Your task to perform on an android device: search for starred emails in the gmail app Image 0: 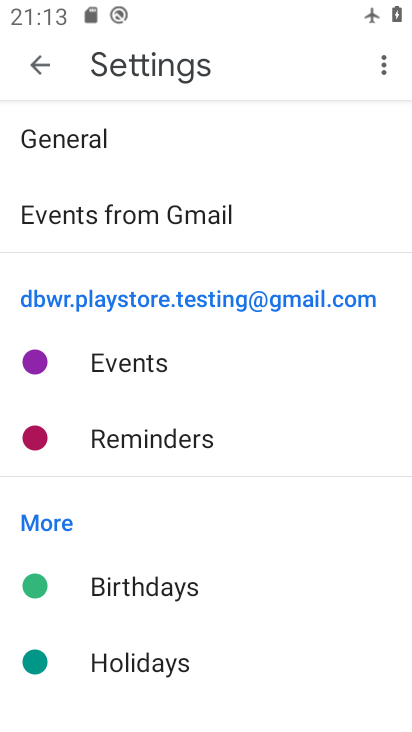
Step 0: press home button
Your task to perform on an android device: search for starred emails in the gmail app Image 1: 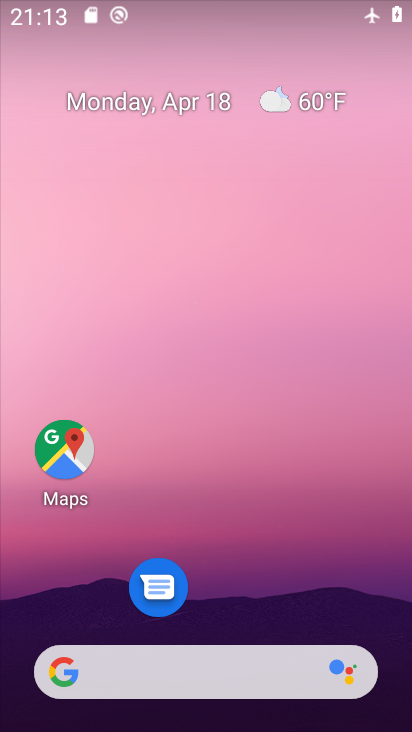
Step 1: drag from (344, 559) to (202, 29)
Your task to perform on an android device: search for starred emails in the gmail app Image 2: 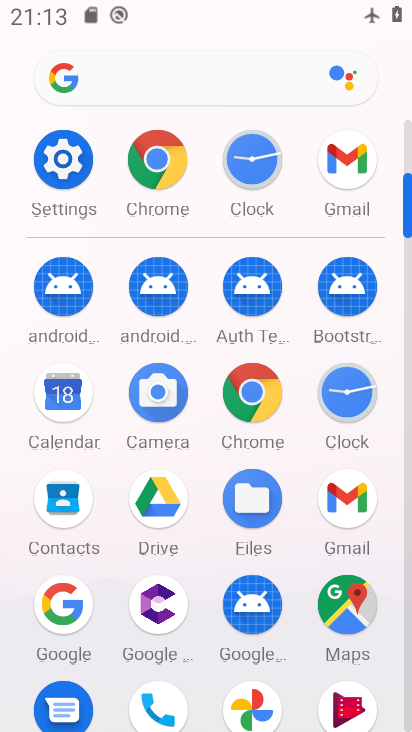
Step 2: click (352, 502)
Your task to perform on an android device: search for starred emails in the gmail app Image 3: 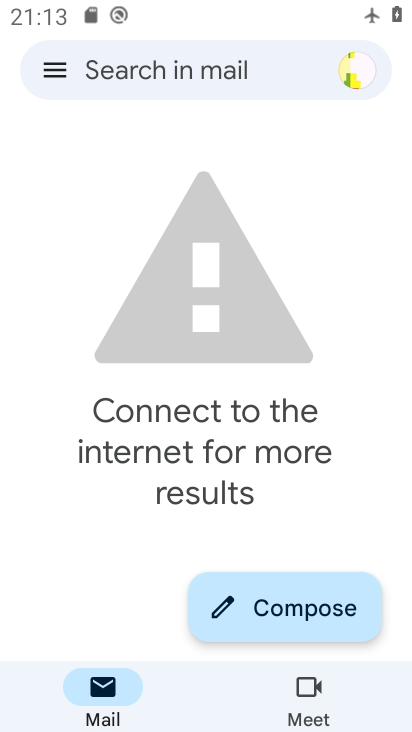
Step 3: click (47, 60)
Your task to perform on an android device: search for starred emails in the gmail app Image 4: 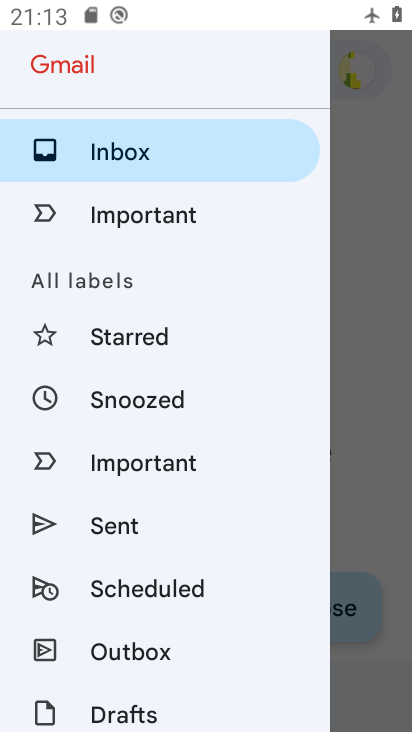
Step 4: click (145, 348)
Your task to perform on an android device: search for starred emails in the gmail app Image 5: 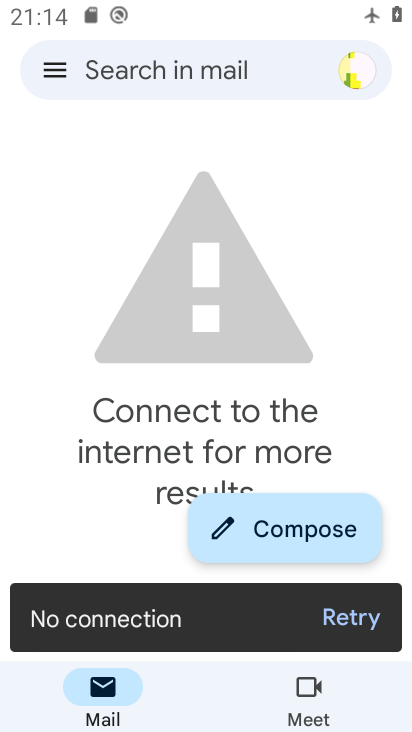
Step 5: task complete